Your task to perform on an android device: toggle priority inbox in the gmail app Image 0: 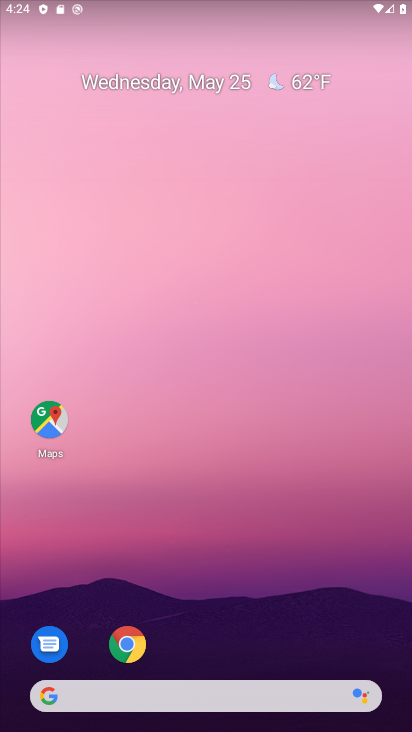
Step 0: drag from (178, 395) to (180, 18)
Your task to perform on an android device: toggle priority inbox in the gmail app Image 1: 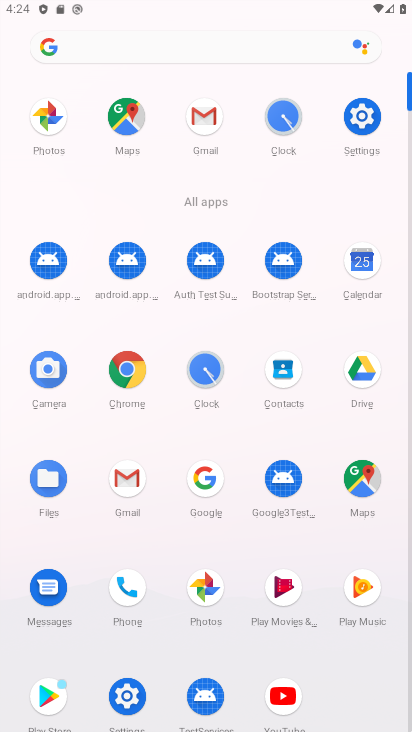
Step 1: click (209, 148)
Your task to perform on an android device: toggle priority inbox in the gmail app Image 2: 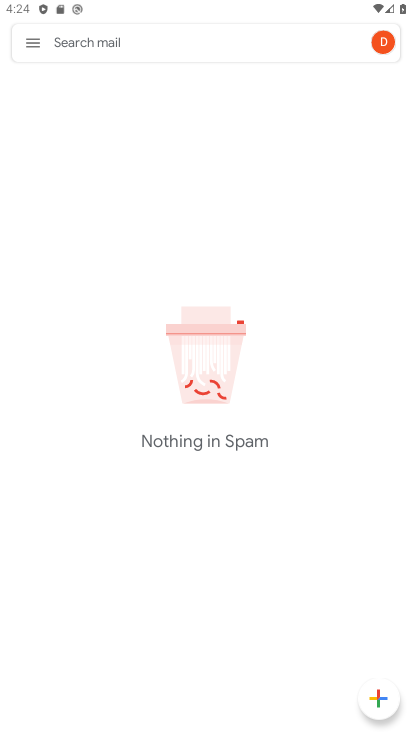
Step 2: click (37, 38)
Your task to perform on an android device: toggle priority inbox in the gmail app Image 3: 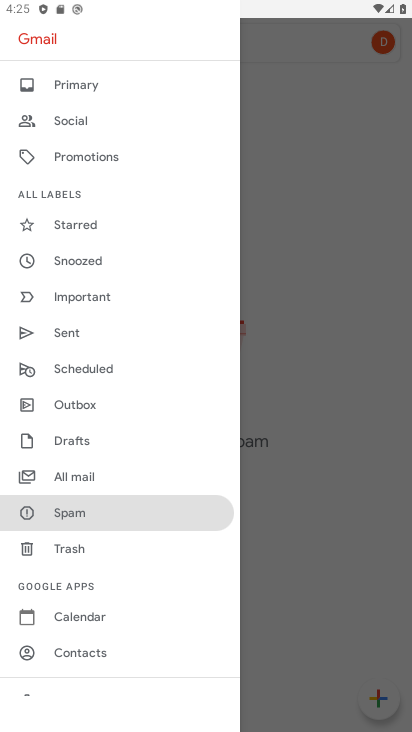
Step 3: drag from (79, 452) to (79, 391)
Your task to perform on an android device: toggle priority inbox in the gmail app Image 4: 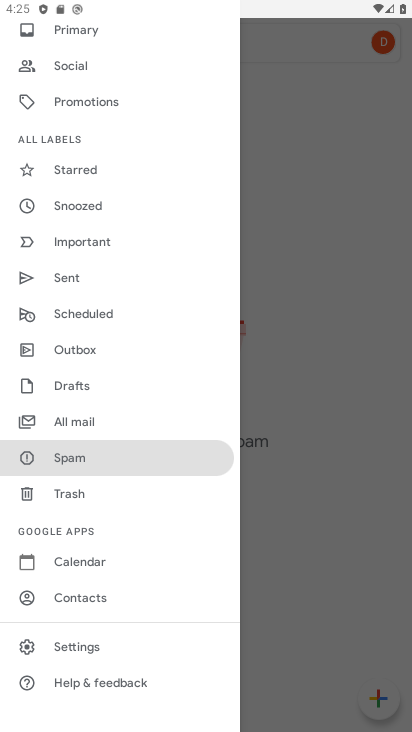
Step 4: click (73, 656)
Your task to perform on an android device: toggle priority inbox in the gmail app Image 5: 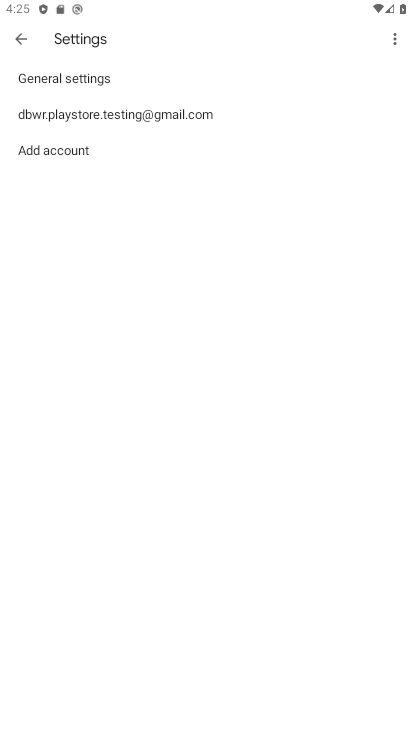
Step 5: click (133, 116)
Your task to perform on an android device: toggle priority inbox in the gmail app Image 6: 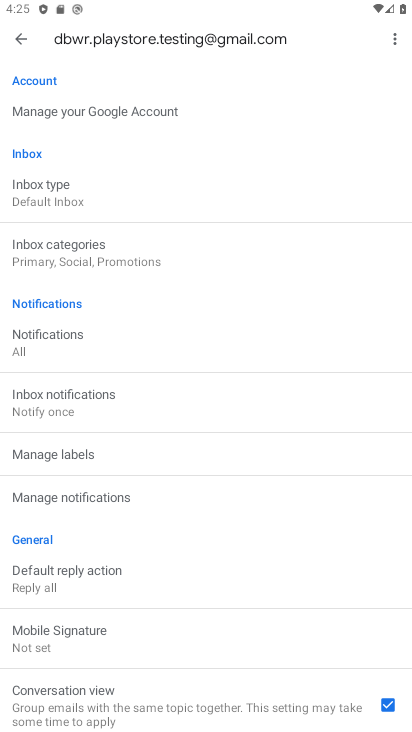
Step 6: click (39, 193)
Your task to perform on an android device: toggle priority inbox in the gmail app Image 7: 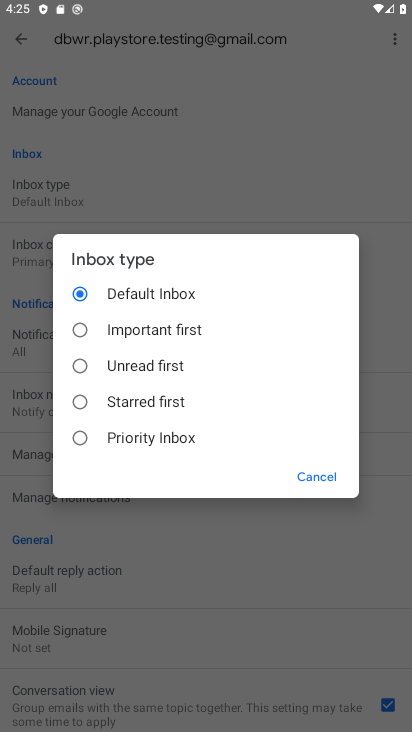
Step 7: click (79, 439)
Your task to perform on an android device: toggle priority inbox in the gmail app Image 8: 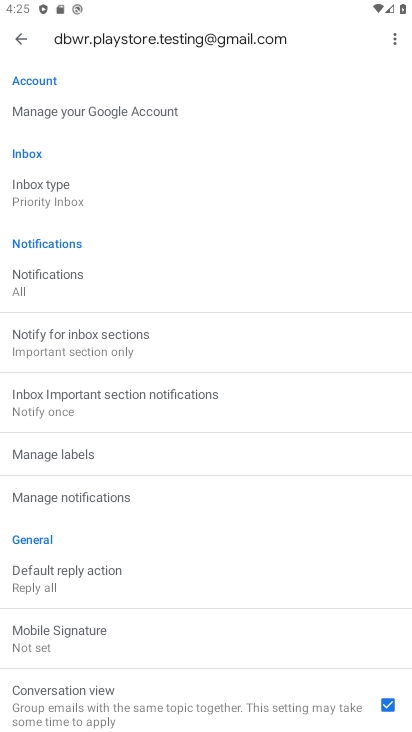
Step 8: task complete